Your task to perform on an android device: Open my contact list Image 0: 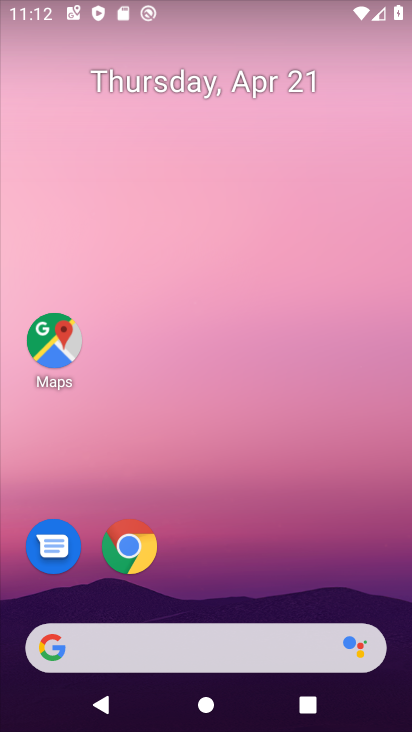
Step 0: drag from (238, 565) to (269, 144)
Your task to perform on an android device: Open my contact list Image 1: 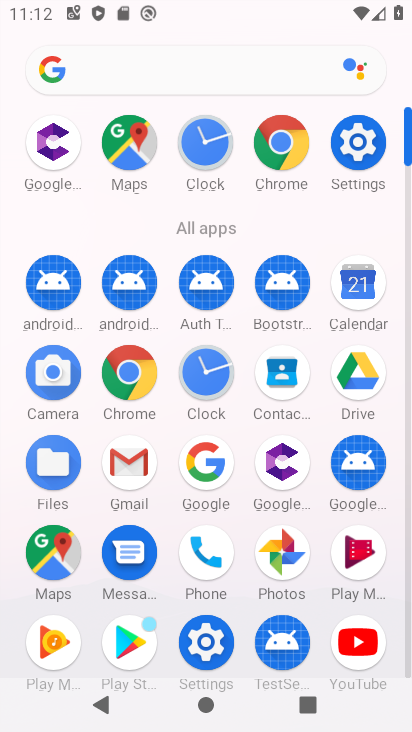
Step 1: click (277, 381)
Your task to perform on an android device: Open my contact list Image 2: 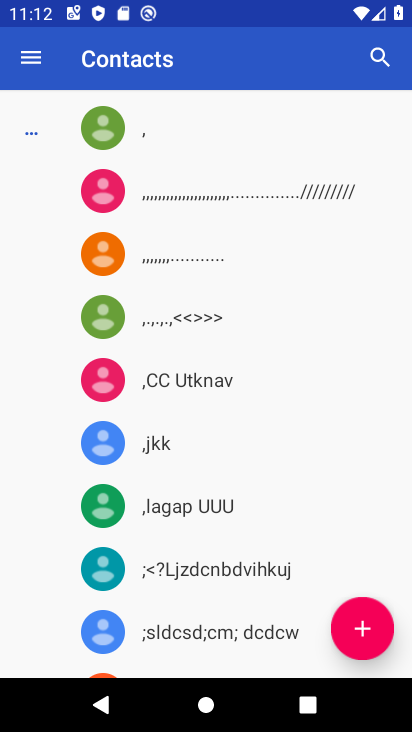
Step 2: click (373, 637)
Your task to perform on an android device: Open my contact list Image 3: 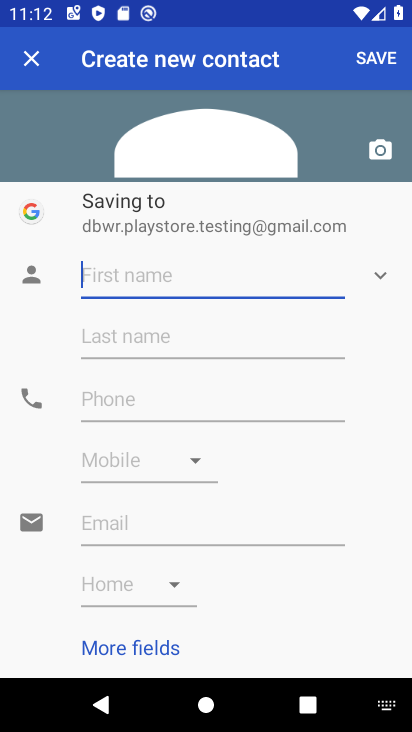
Step 3: type "hjfgh"
Your task to perform on an android device: Open my contact list Image 4: 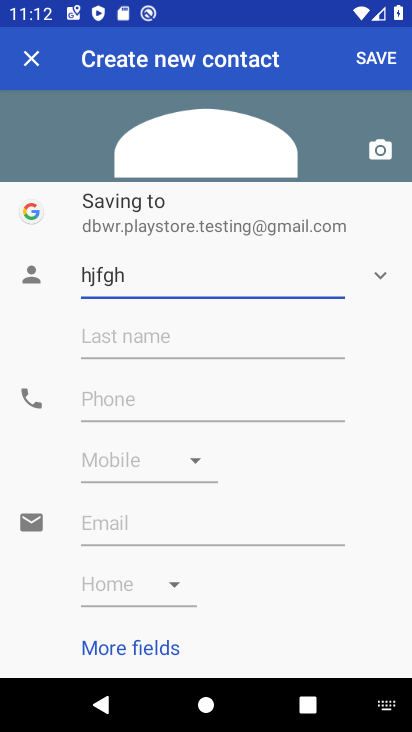
Step 4: click (379, 57)
Your task to perform on an android device: Open my contact list Image 5: 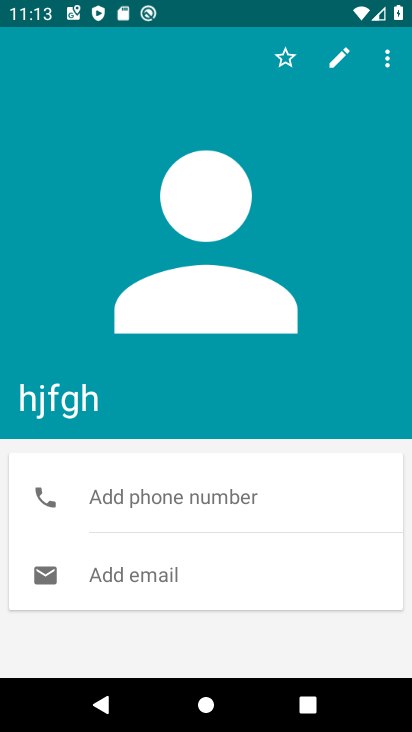
Step 5: task complete